Your task to perform on an android device: Add asus rog to the cart on target.com Image 0: 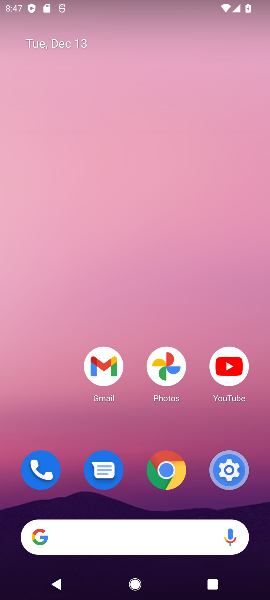
Step 0: click (58, 536)
Your task to perform on an android device: Add asus rog to the cart on target.com Image 1: 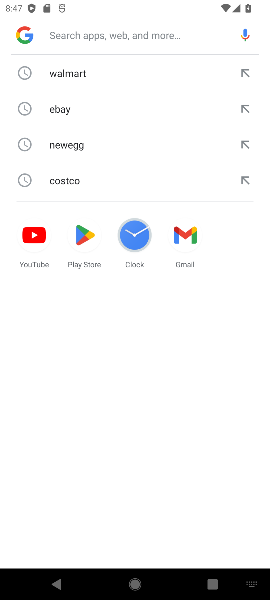
Step 1: press enter
Your task to perform on an android device: Add asus rog to the cart on target.com Image 2: 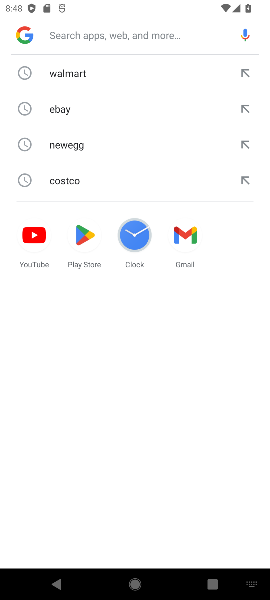
Step 2: type "target.com"
Your task to perform on an android device: Add asus rog to the cart on target.com Image 3: 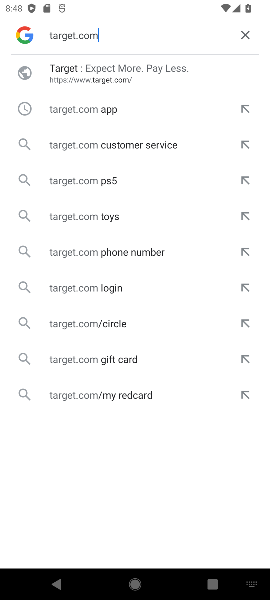
Step 3: press enter
Your task to perform on an android device: Add asus rog to the cart on target.com Image 4: 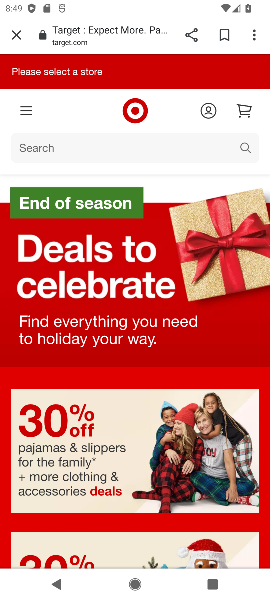
Step 4: click (83, 144)
Your task to perform on an android device: Add asus rog to the cart on target.com Image 5: 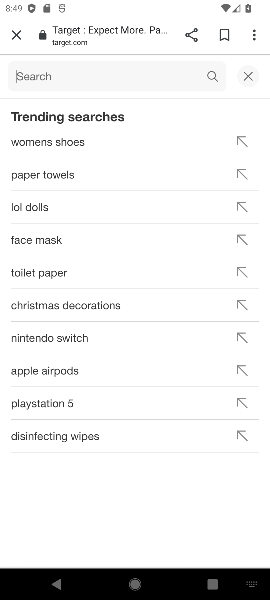
Step 5: type "asus rog"
Your task to perform on an android device: Add asus rog to the cart on target.com Image 6: 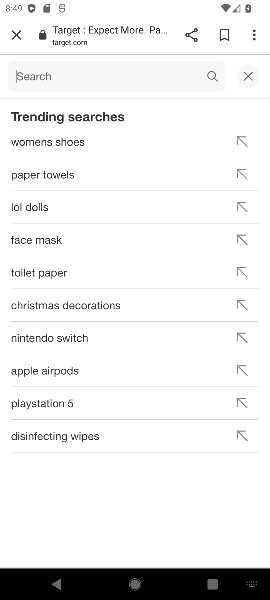
Step 6: press enter
Your task to perform on an android device: Add asus rog to the cart on target.com Image 7: 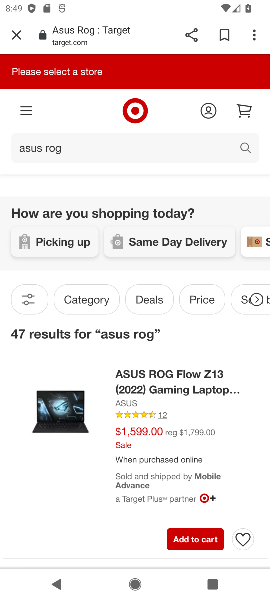
Step 7: click (192, 539)
Your task to perform on an android device: Add asus rog to the cart on target.com Image 8: 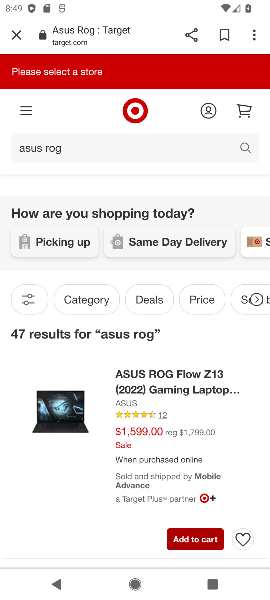
Step 8: click (194, 539)
Your task to perform on an android device: Add asus rog to the cart on target.com Image 9: 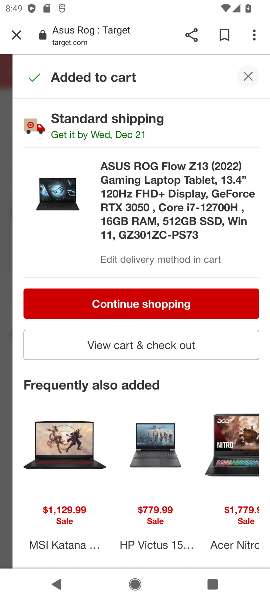
Step 9: task complete